Your task to perform on an android device: Clear the shopping cart on walmart. Search for corsair k70 on walmart, select the first entry, add it to the cart, then select checkout. Image 0: 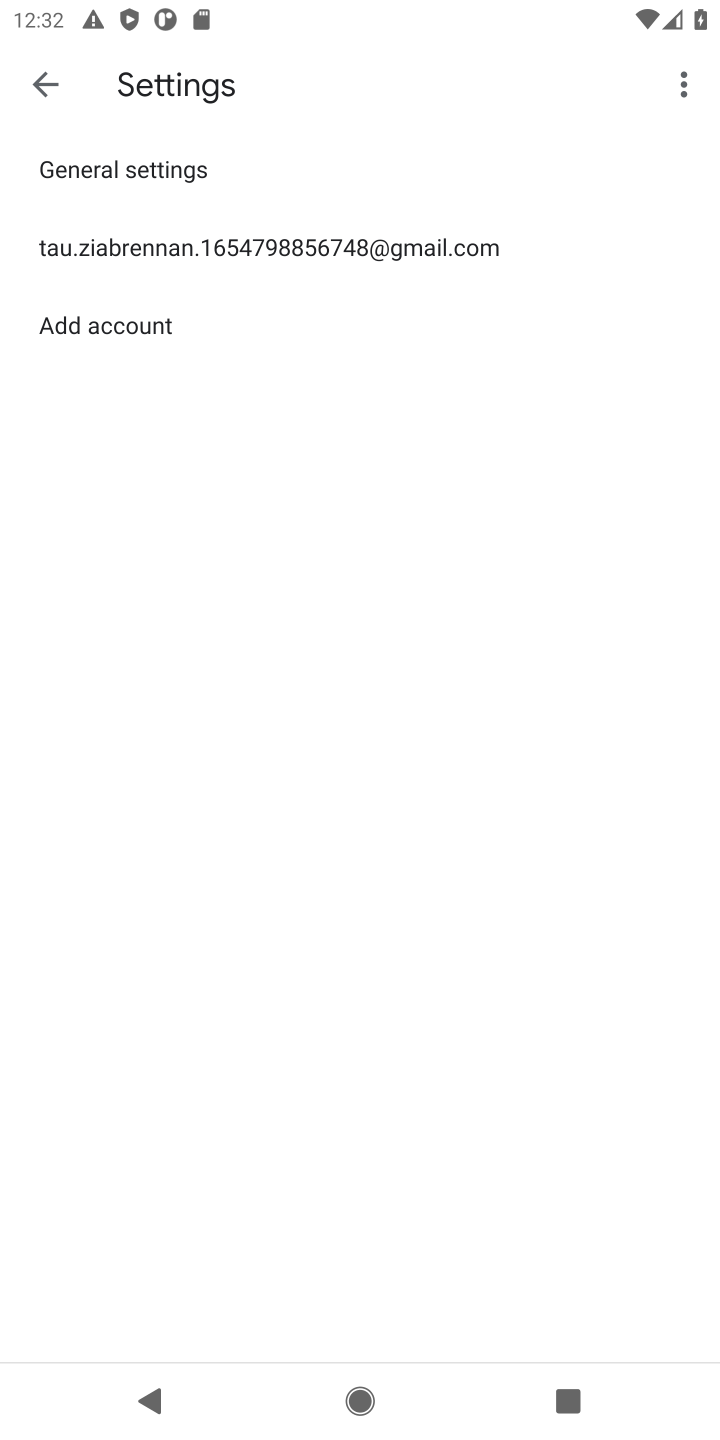
Step 0: press home button
Your task to perform on an android device: Clear the shopping cart on walmart. Search for corsair k70 on walmart, select the first entry, add it to the cart, then select checkout. Image 1: 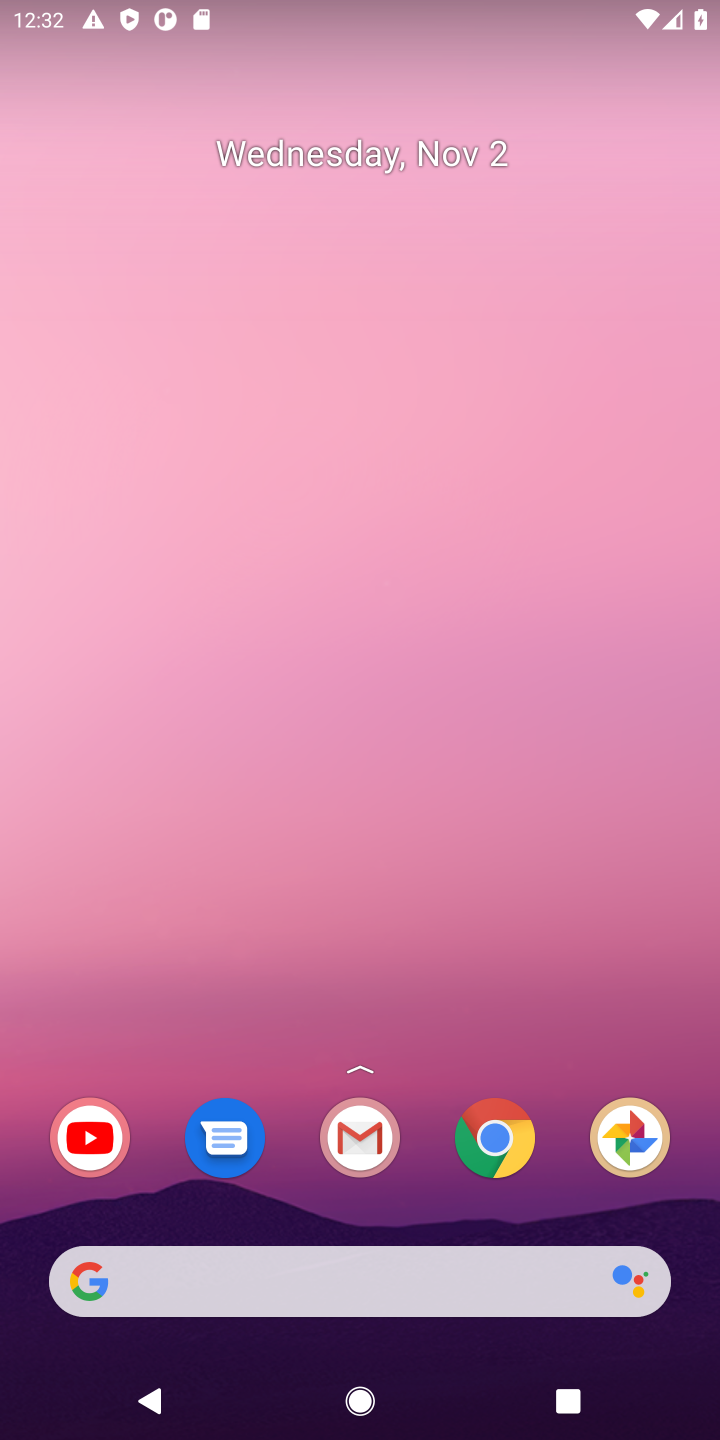
Step 1: click (137, 1274)
Your task to perform on an android device: Clear the shopping cart on walmart. Search for corsair k70 on walmart, select the first entry, add it to the cart, then select checkout. Image 2: 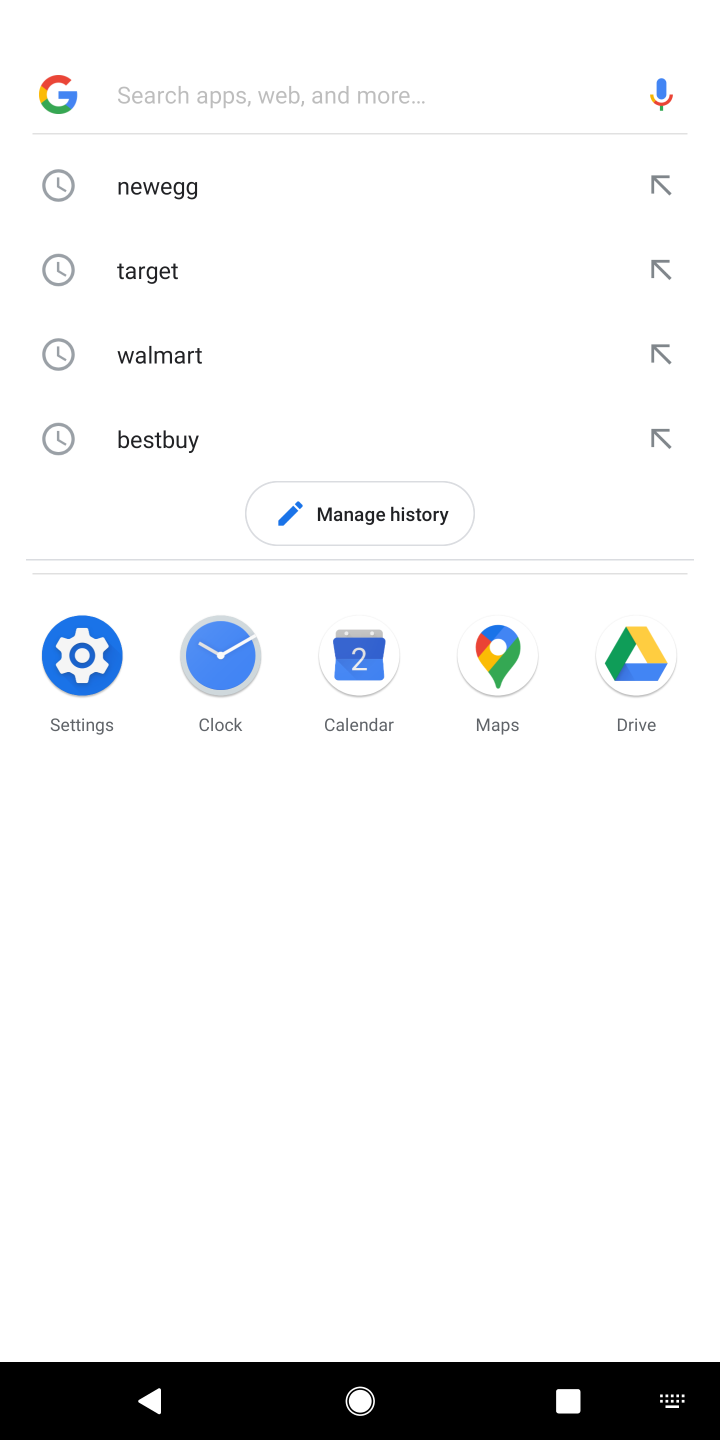
Step 2: type "walmart"
Your task to perform on an android device: Clear the shopping cart on walmart. Search for corsair k70 on walmart, select the first entry, add it to the cart, then select checkout. Image 3: 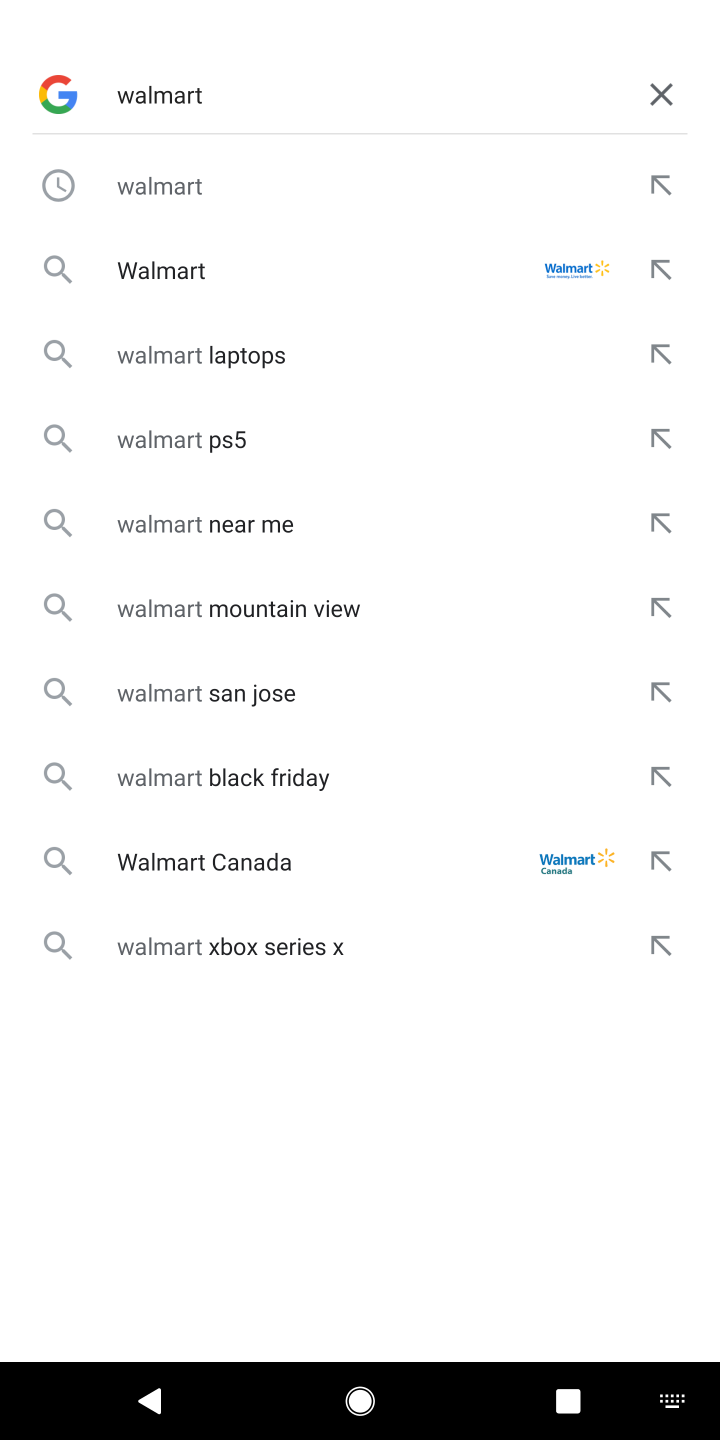
Step 3: press enter
Your task to perform on an android device: Clear the shopping cart on walmart. Search for corsair k70 on walmart, select the first entry, add it to the cart, then select checkout. Image 4: 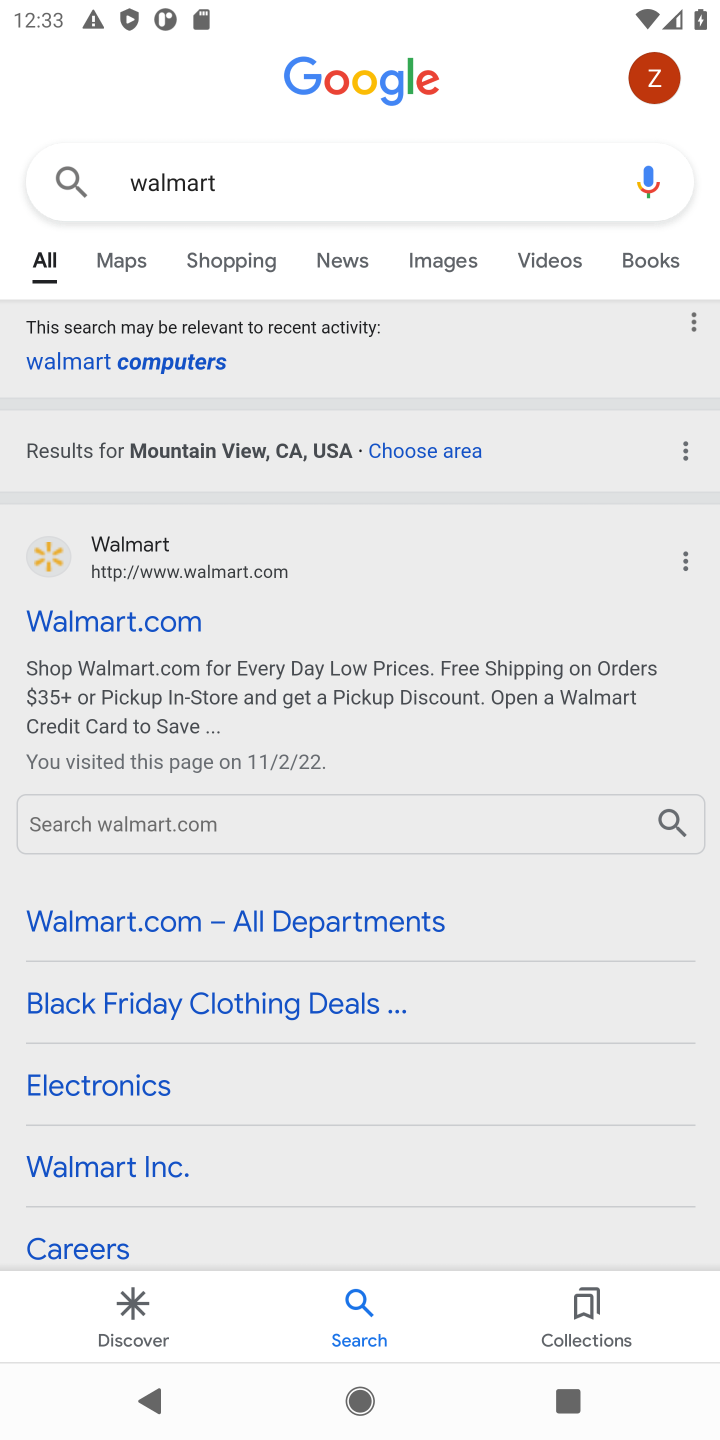
Step 4: click (124, 618)
Your task to perform on an android device: Clear the shopping cart on walmart. Search for corsair k70 on walmart, select the first entry, add it to the cart, then select checkout. Image 5: 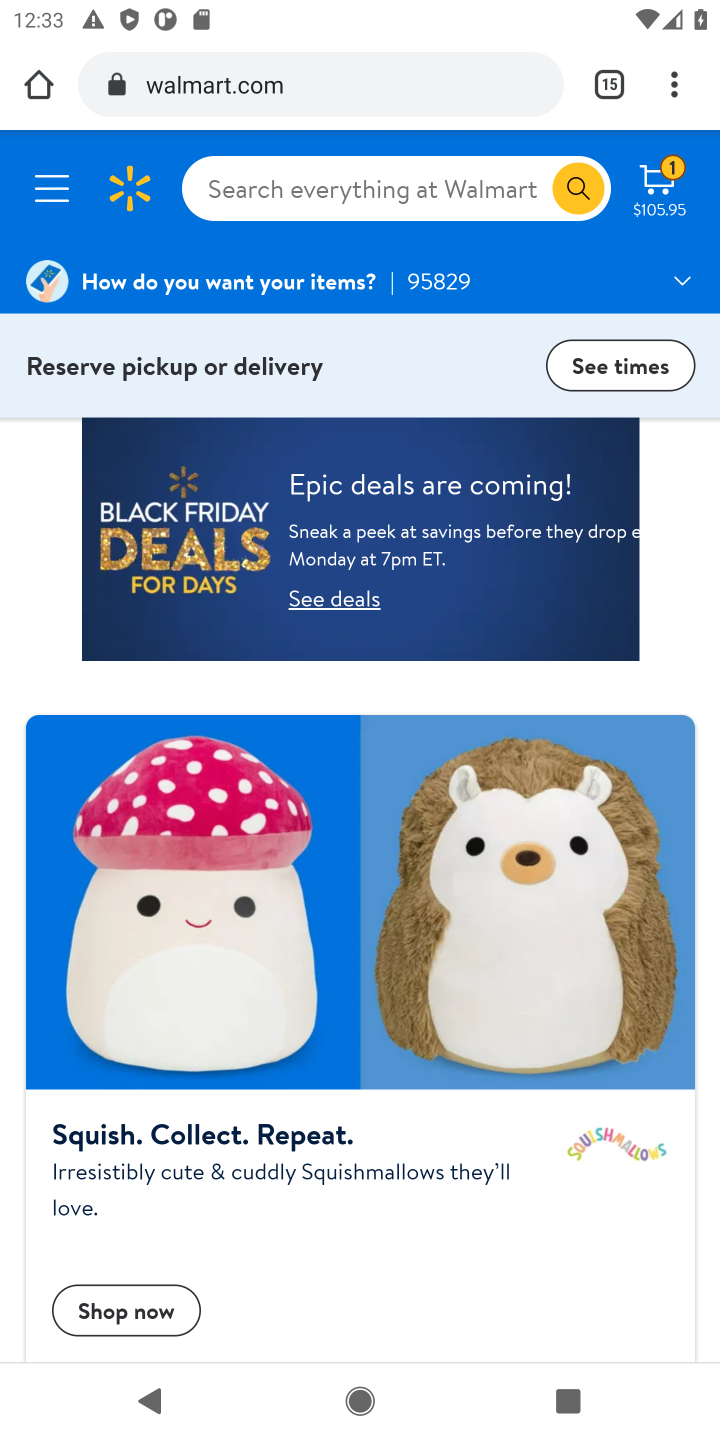
Step 5: click (669, 183)
Your task to perform on an android device: Clear the shopping cart on walmart. Search for corsair k70 on walmart, select the first entry, add it to the cart, then select checkout. Image 6: 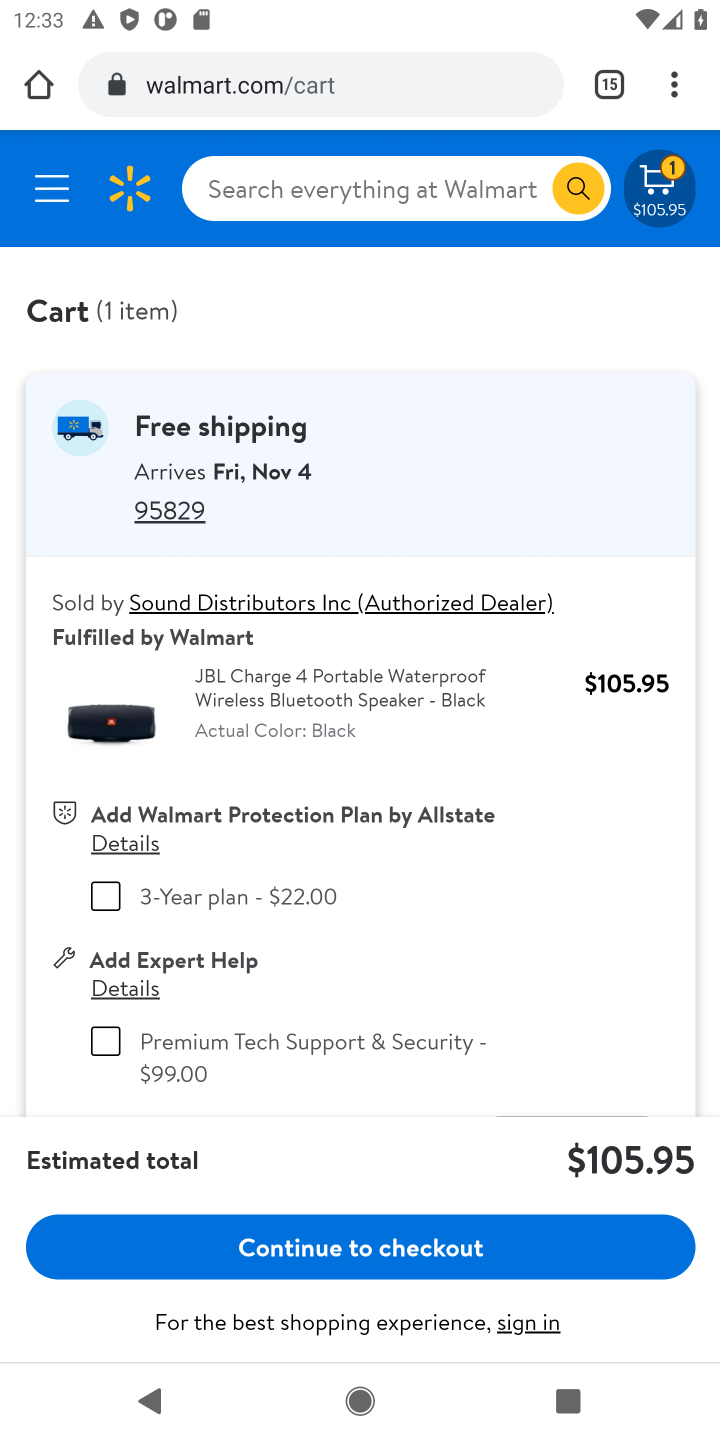
Step 6: drag from (386, 960) to (361, 618)
Your task to perform on an android device: Clear the shopping cart on walmart. Search for corsair k70 on walmart, select the first entry, add it to the cart, then select checkout. Image 7: 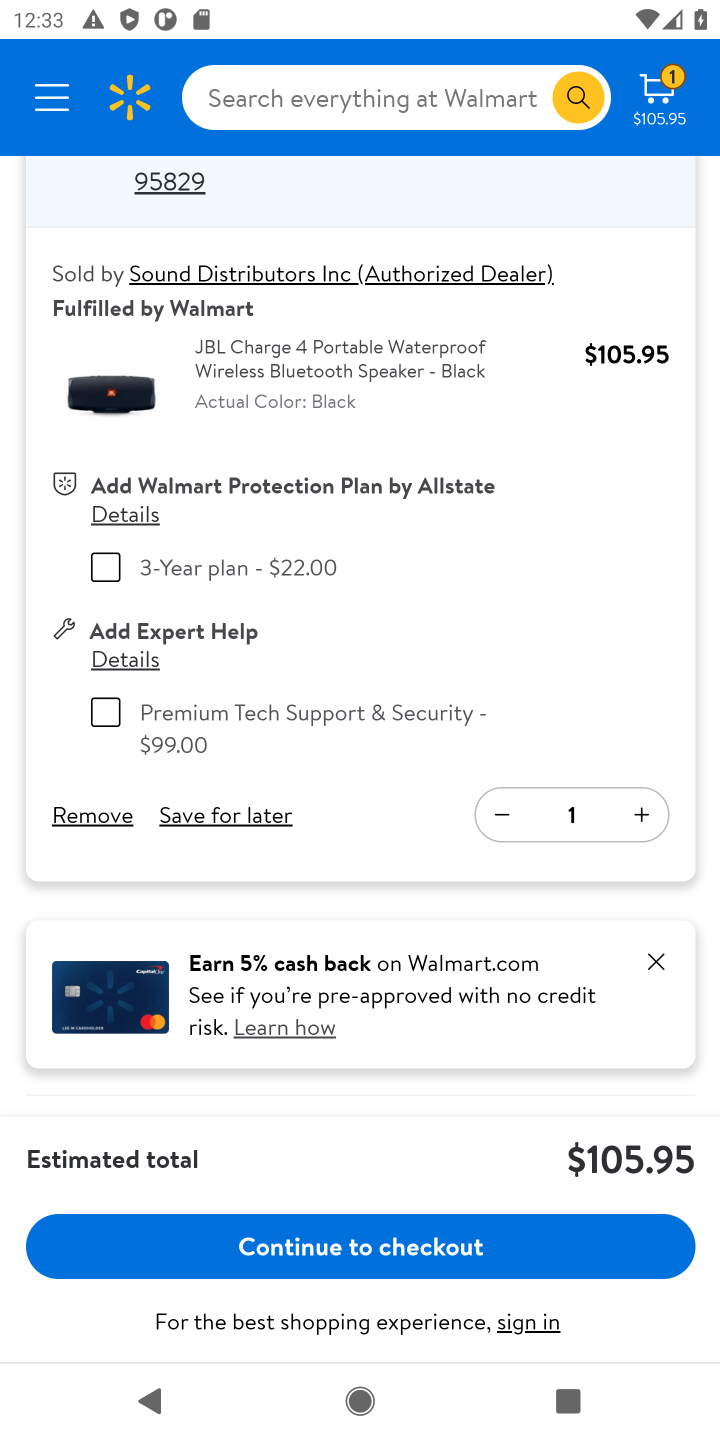
Step 7: click (89, 815)
Your task to perform on an android device: Clear the shopping cart on walmart. Search for corsair k70 on walmart, select the first entry, add it to the cart, then select checkout. Image 8: 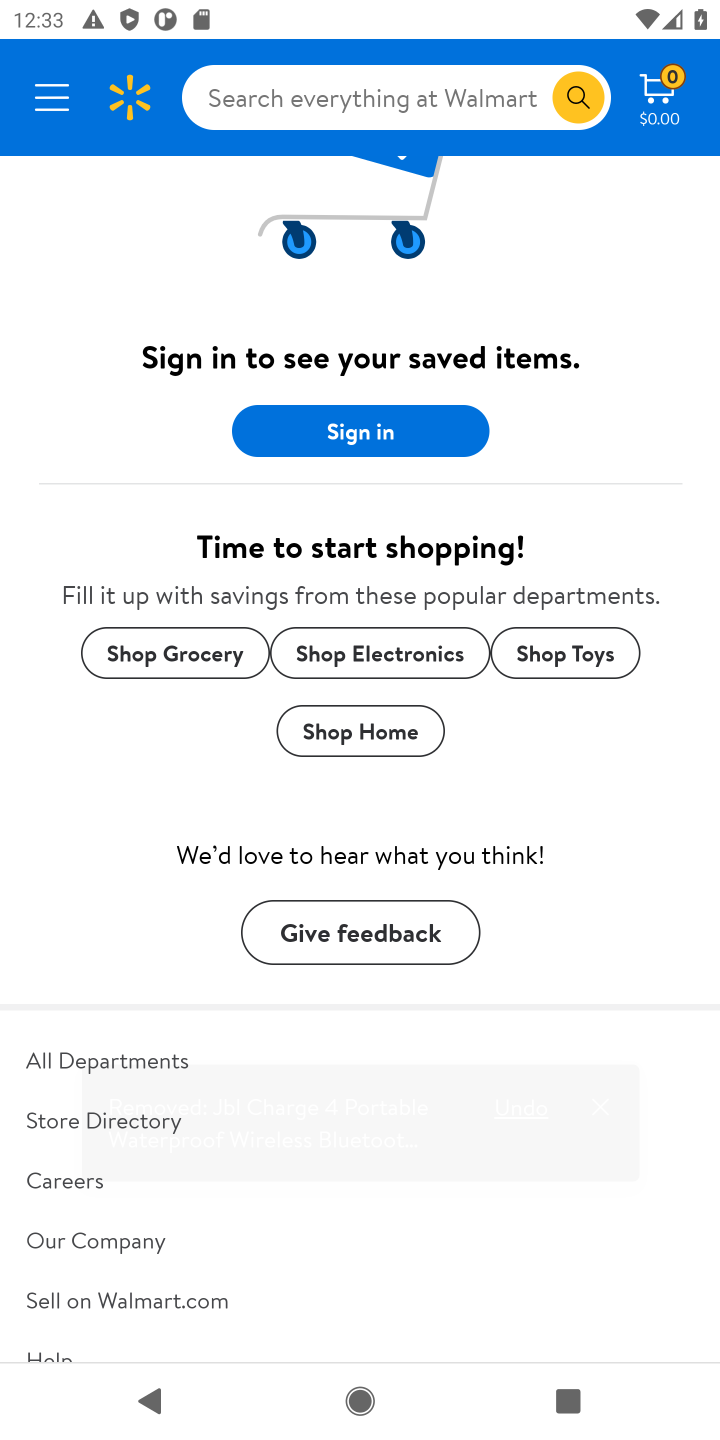
Step 8: click (235, 99)
Your task to perform on an android device: Clear the shopping cart on walmart. Search for corsair k70 on walmart, select the first entry, add it to the cart, then select checkout. Image 9: 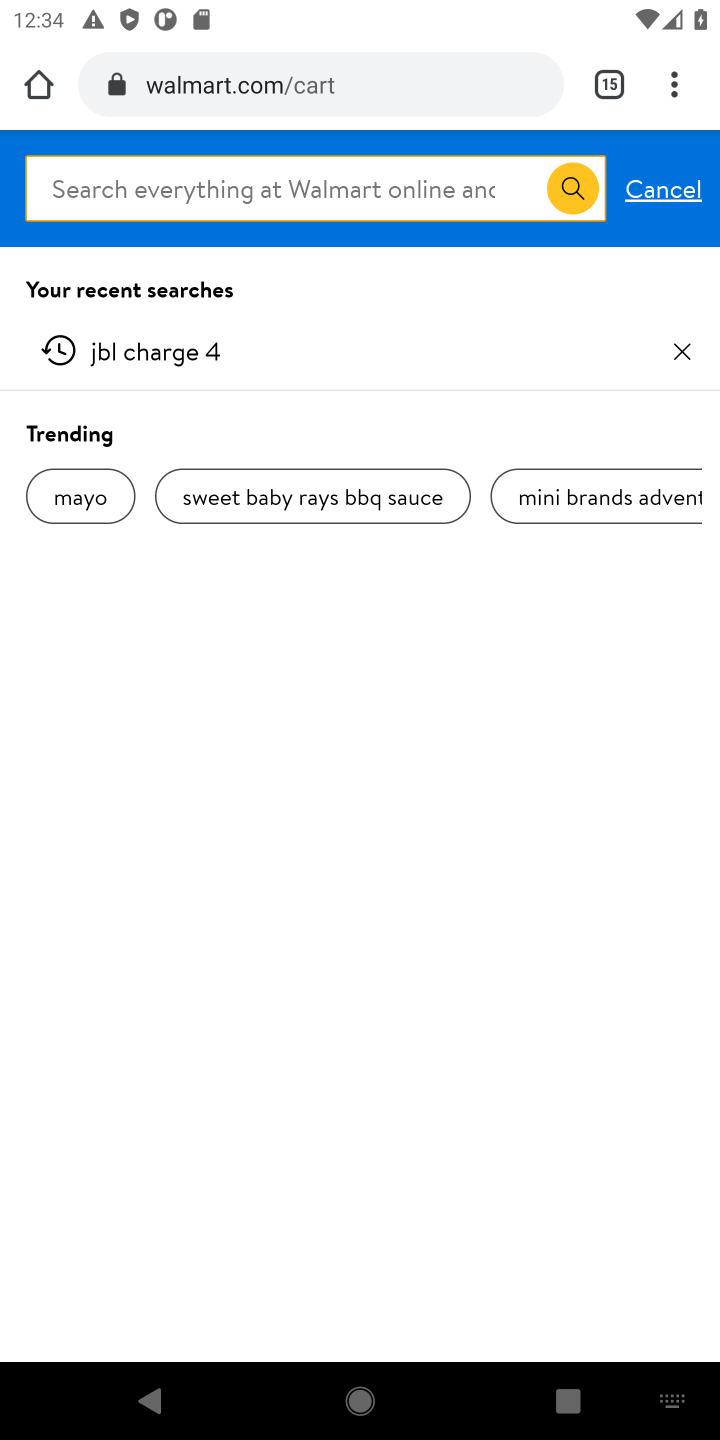
Step 9: press enter
Your task to perform on an android device: Clear the shopping cart on walmart. Search for corsair k70 on walmart, select the first entry, add it to the cart, then select checkout. Image 10: 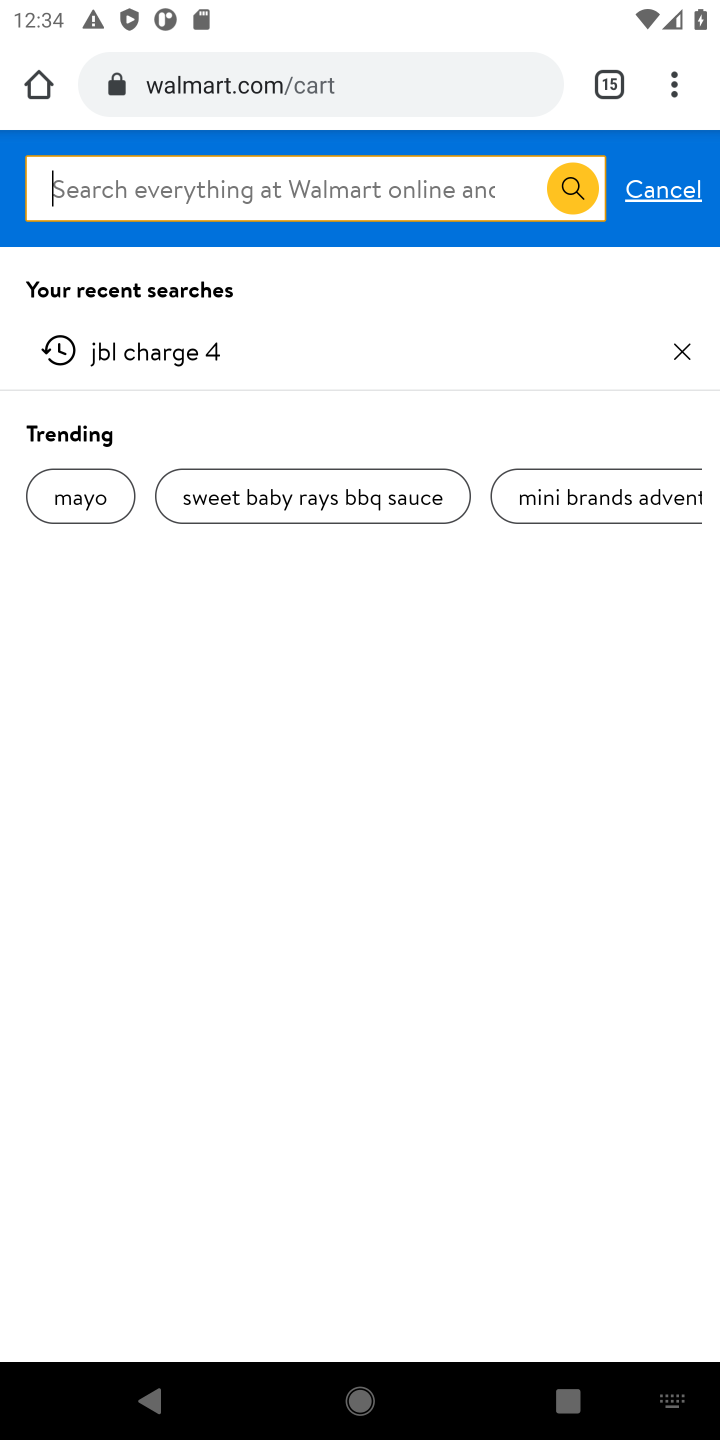
Step 10: type "corsair k70"
Your task to perform on an android device: Clear the shopping cart on walmart. Search for corsair k70 on walmart, select the first entry, add it to the cart, then select checkout. Image 11: 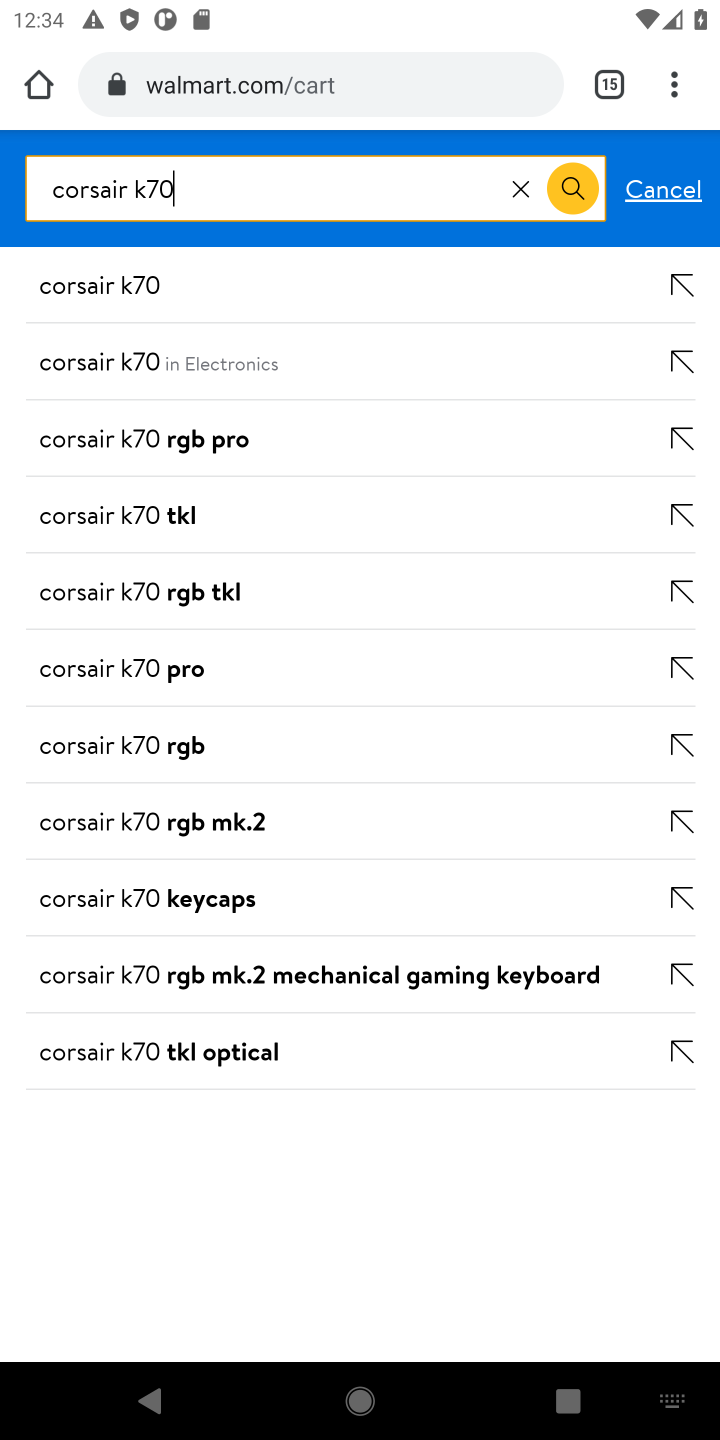
Step 11: press enter
Your task to perform on an android device: Clear the shopping cart on walmart. Search for corsair k70 on walmart, select the first entry, add it to the cart, then select checkout. Image 12: 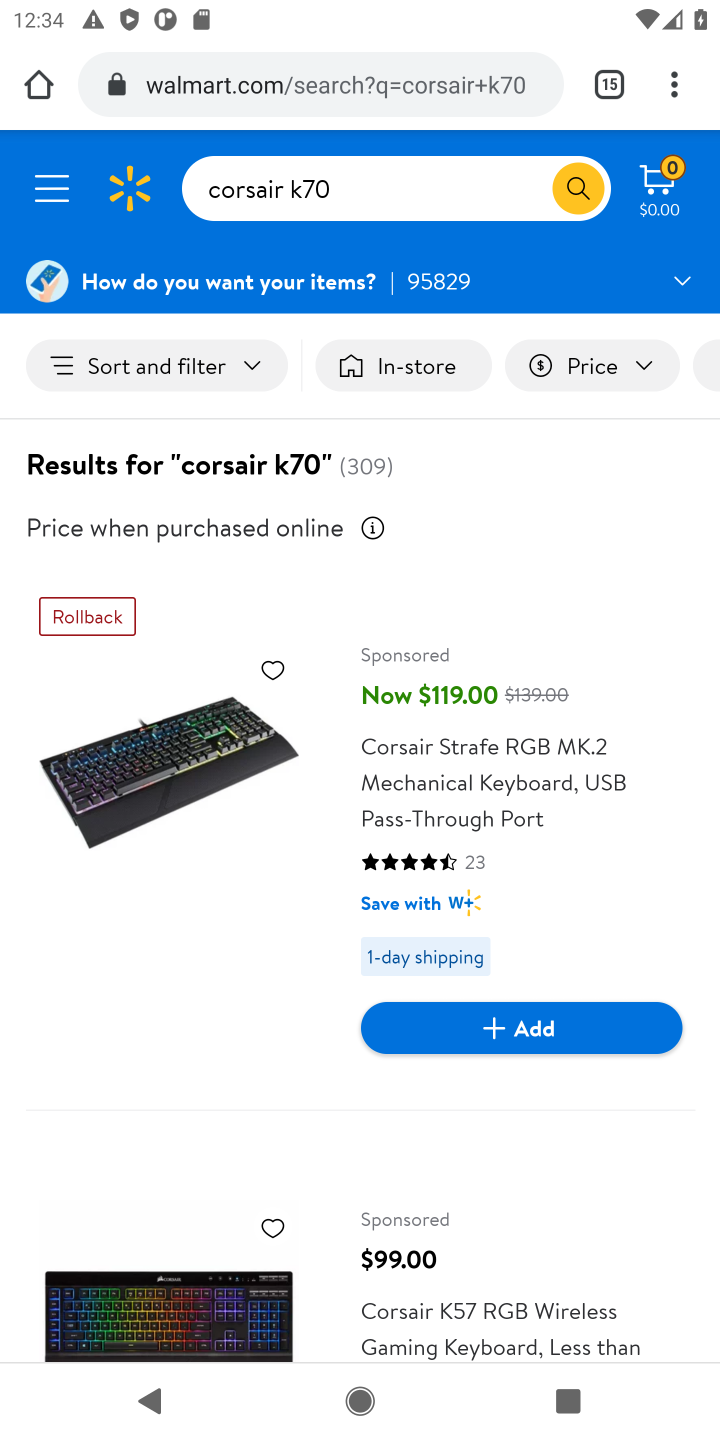
Step 12: drag from (525, 1136) to (508, 709)
Your task to perform on an android device: Clear the shopping cart on walmart. Search for corsair k70 on walmart, select the first entry, add it to the cart, then select checkout. Image 13: 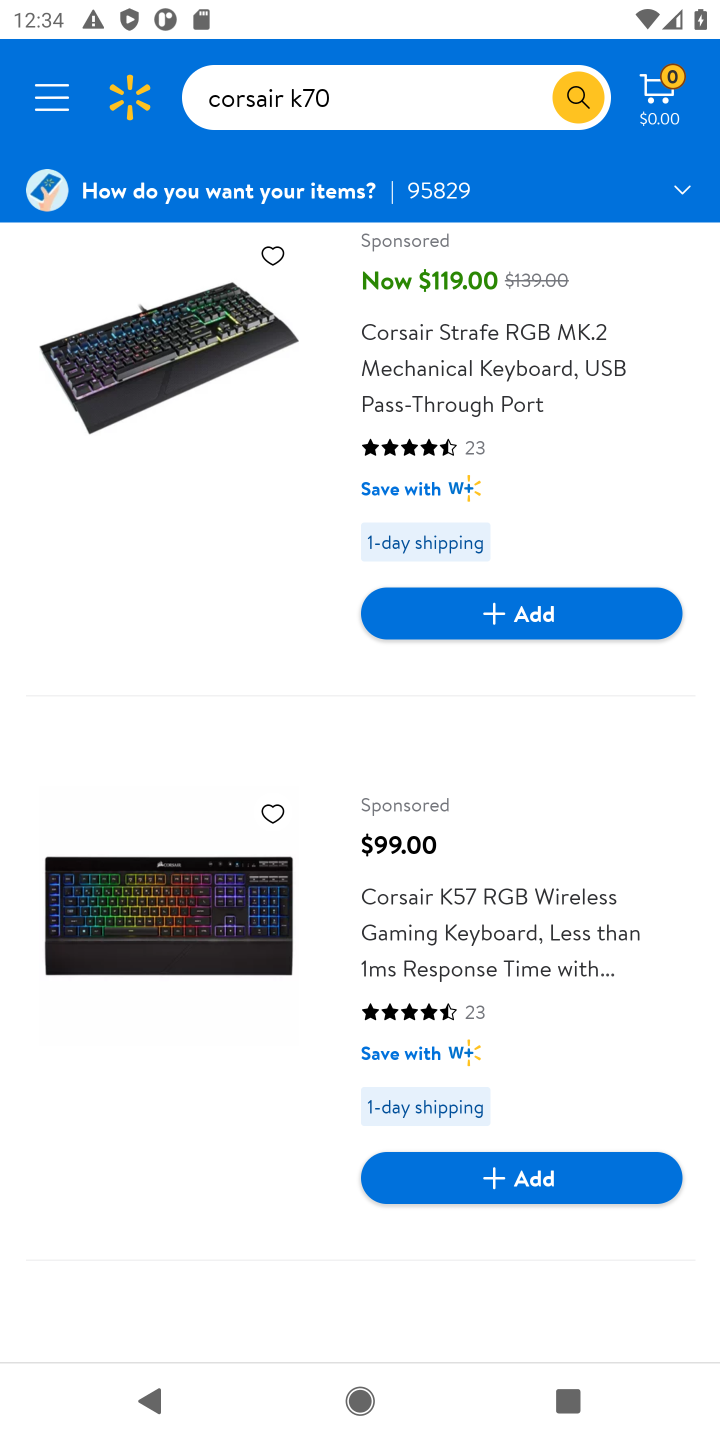
Step 13: drag from (309, 982) to (298, 437)
Your task to perform on an android device: Clear the shopping cart on walmart. Search for corsair k70 on walmart, select the first entry, add it to the cart, then select checkout. Image 14: 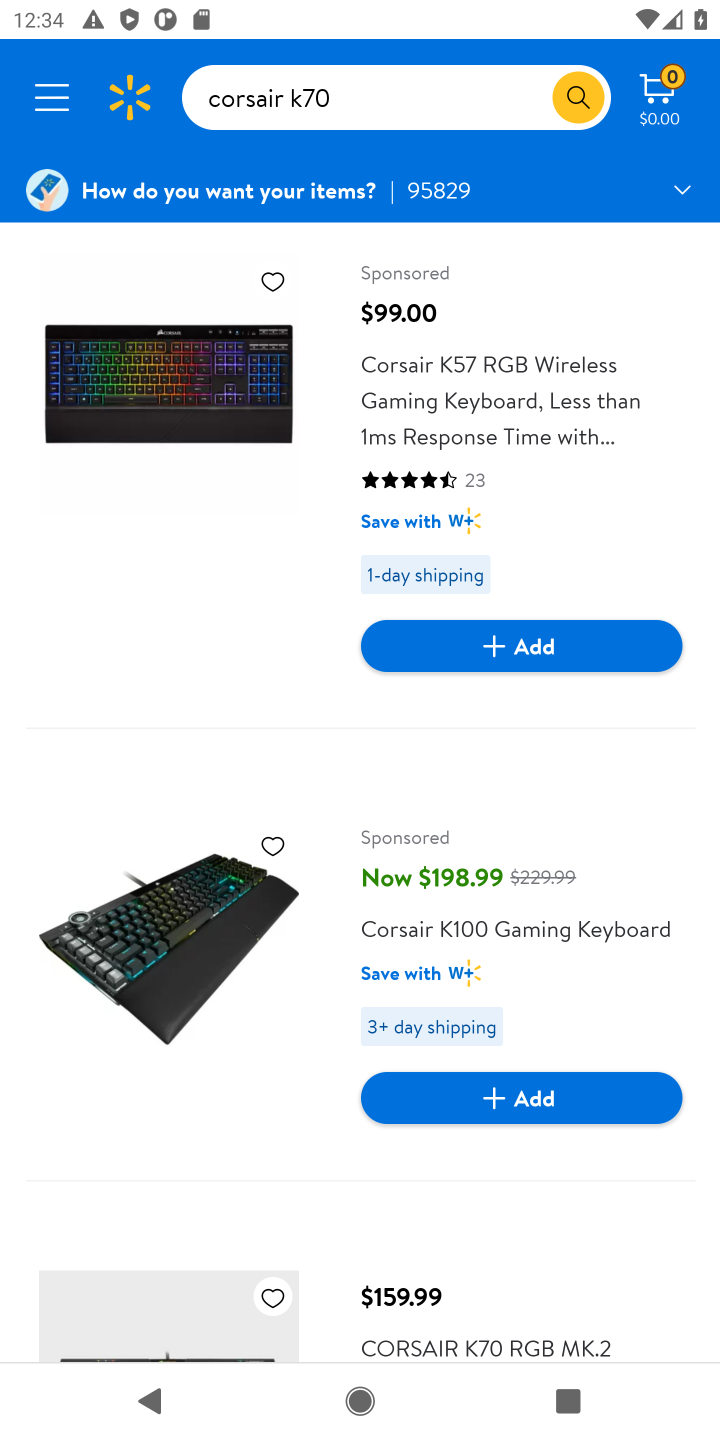
Step 14: drag from (340, 1081) to (381, 629)
Your task to perform on an android device: Clear the shopping cart on walmart. Search for corsair k70 on walmart, select the first entry, add it to the cart, then select checkout. Image 15: 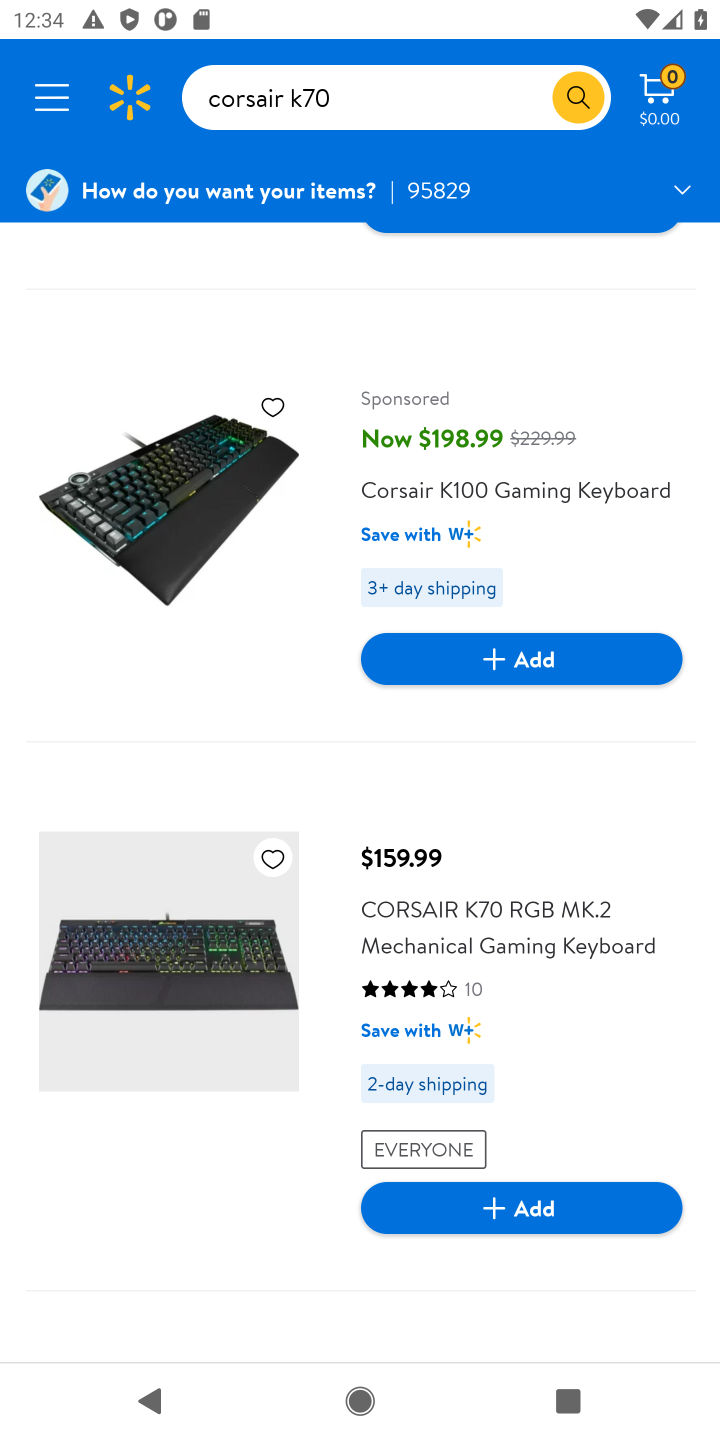
Step 15: drag from (317, 1161) to (362, 776)
Your task to perform on an android device: Clear the shopping cart on walmart. Search for corsair k70 on walmart, select the first entry, add it to the cart, then select checkout. Image 16: 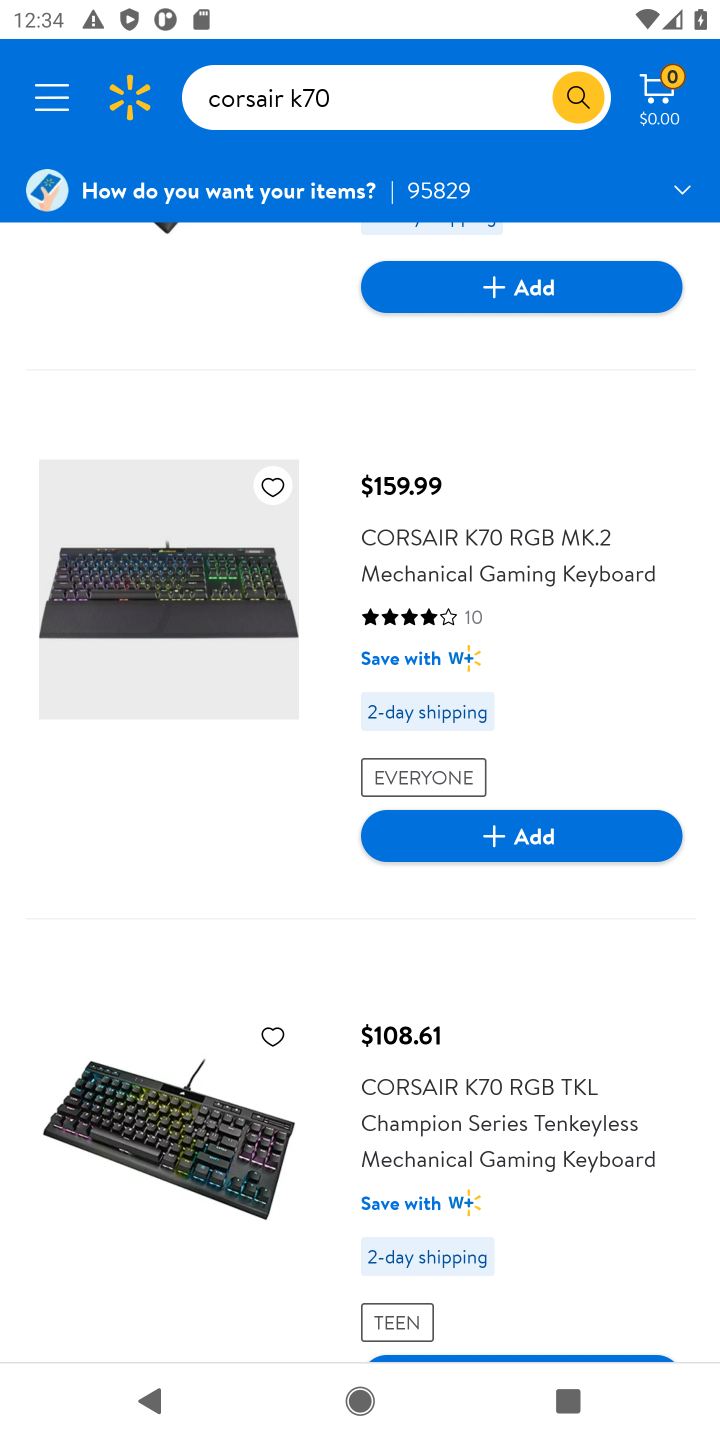
Step 16: click (534, 840)
Your task to perform on an android device: Clear the shopping cart on walmart. Search for corsair k70 on walmart, select the first entry, add it to the cart, then select checkout. Image 17: 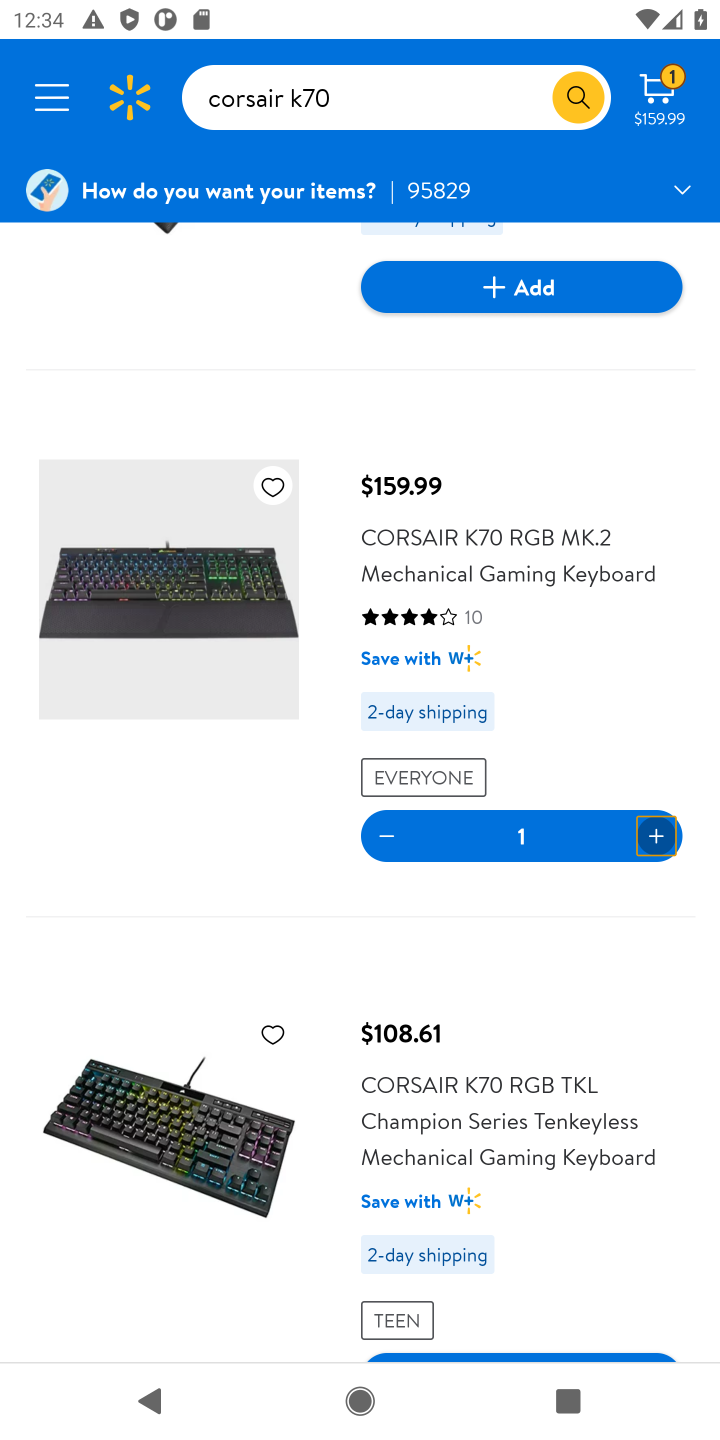
Step 17: click (666, 88)
Your task to perform on an android device: Clear the shopping cart on walmart. Search for corsair k70 on walmart, select the first entry, add it to the cart, then select checkout. Image 18: 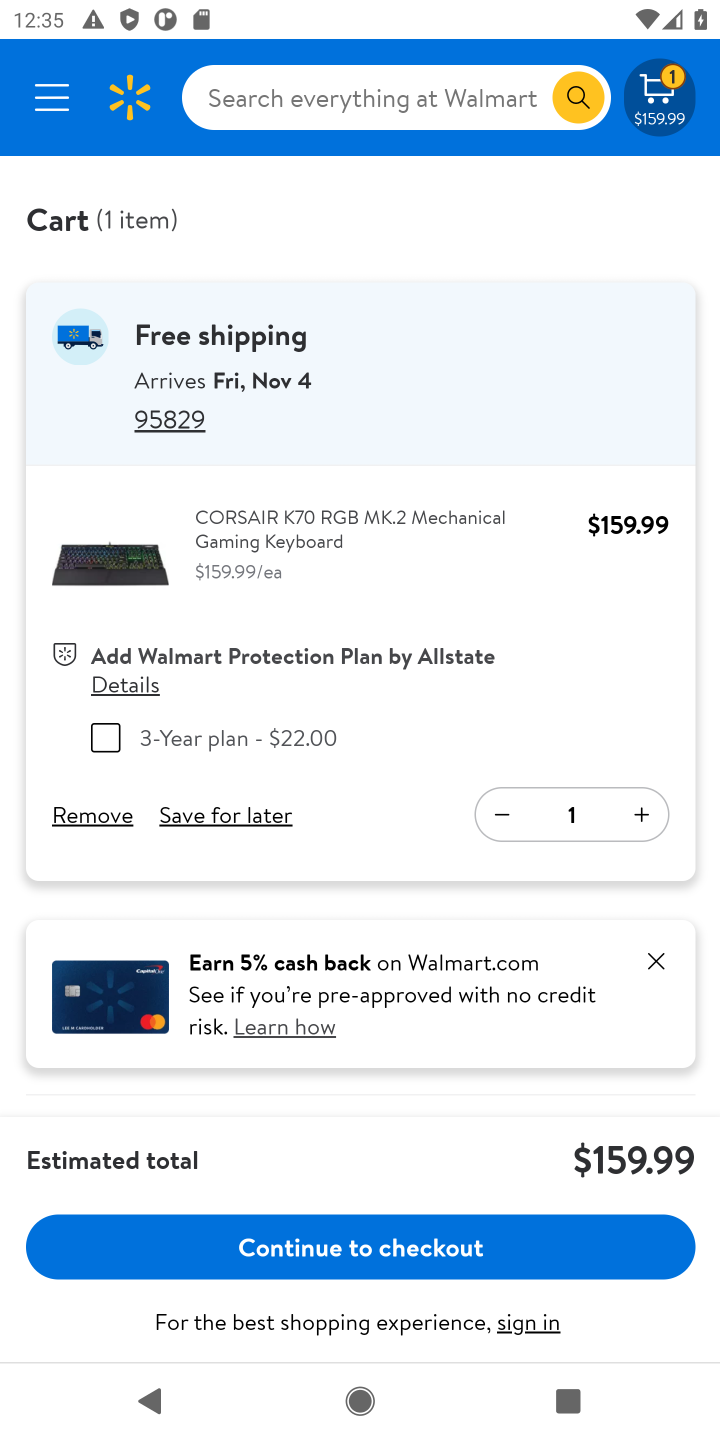
Step 18: click (297, 1251)
Your task to perform on an android device: Clear the shopping cart on walmart. Search for corsair k70 on walmart, select the first entry, add it to the cart, then select checkout. Image 19: 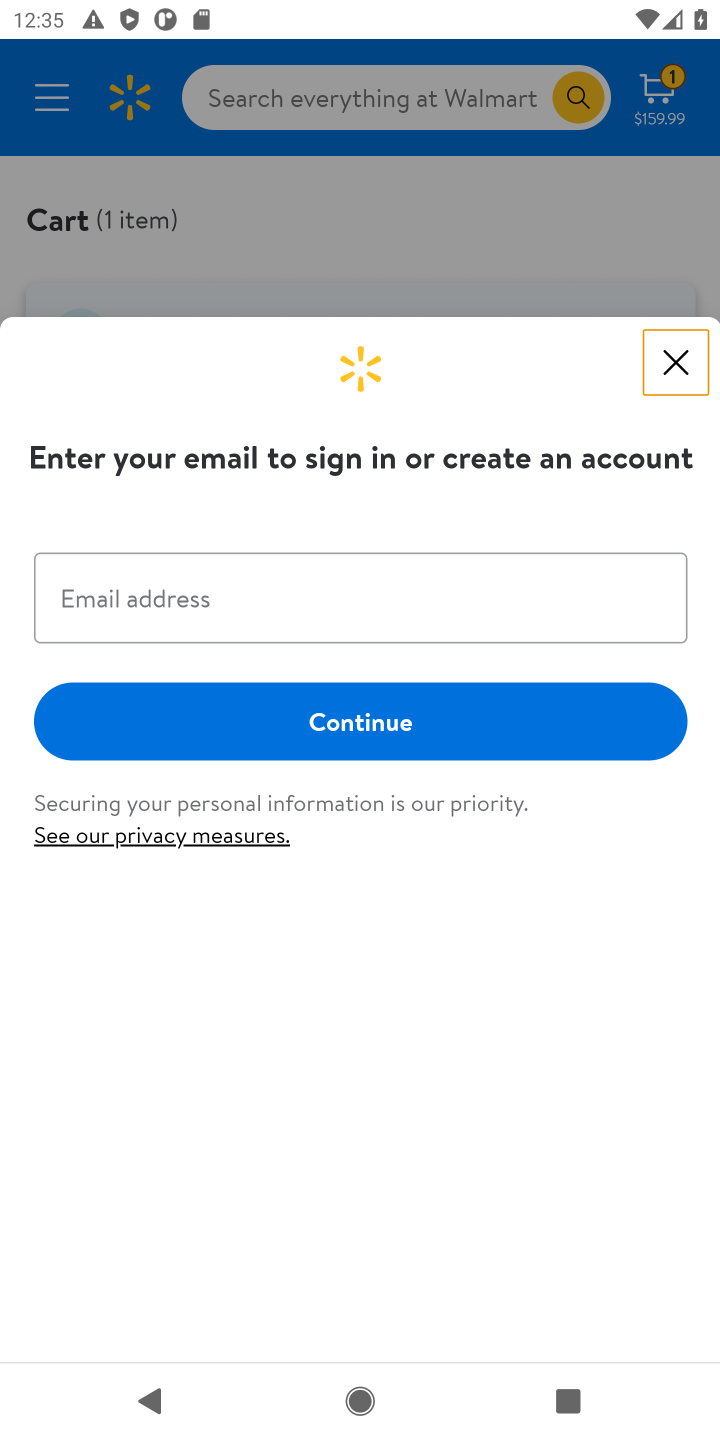
Step 19: task complete